Your task to perform on an android device: read, delete, or share a saved page in the chrome app Image 0: 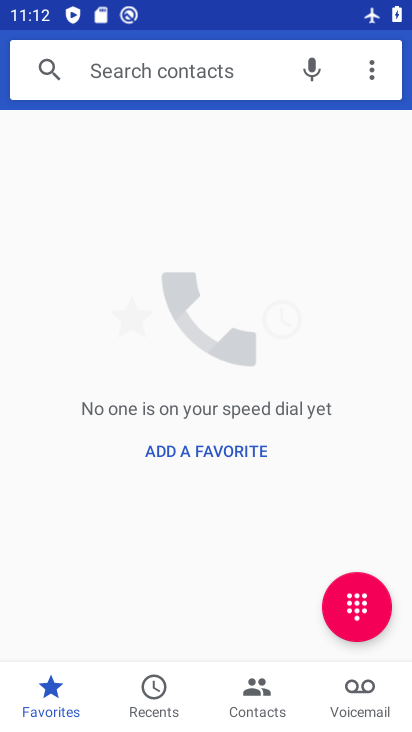
Step 0: press home button
Your task to perform on an android device: read, delete, or share a saved page in the chrome app Image 1: 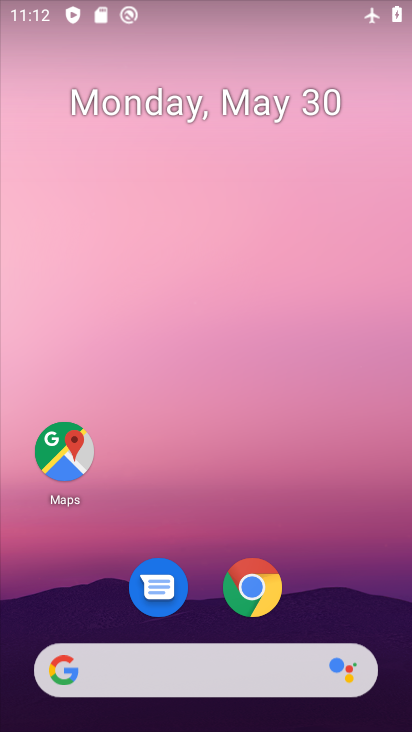
Step 1: click (253, 585)
Your task to perform on an android device: read, delete, or share a saved page in the chrome app Image 2: 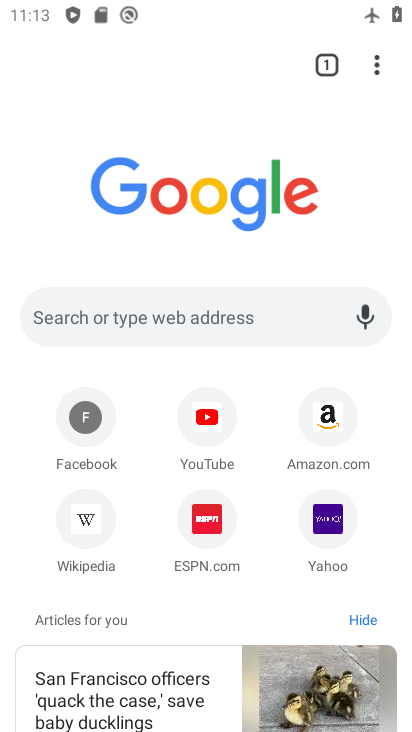
Step 2: click (385, 55)
Your task to perform on an android device: read, delete, or share a saved page in the chrome app Image 3: 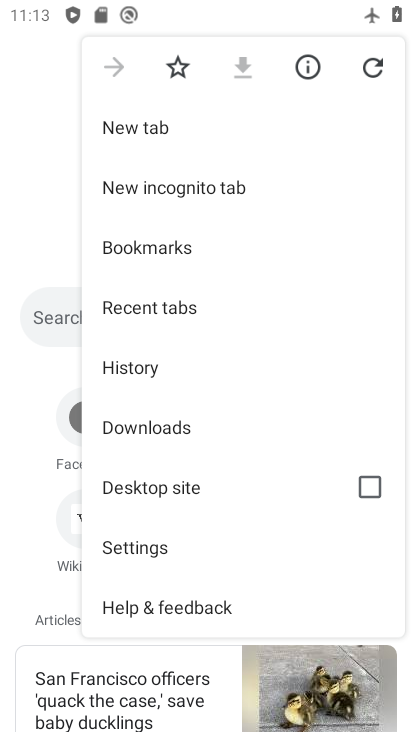
Step 3: click (167, 426)
Your task to perform on an android device: read, delete, or share a saved page in the chrome app Image 4: 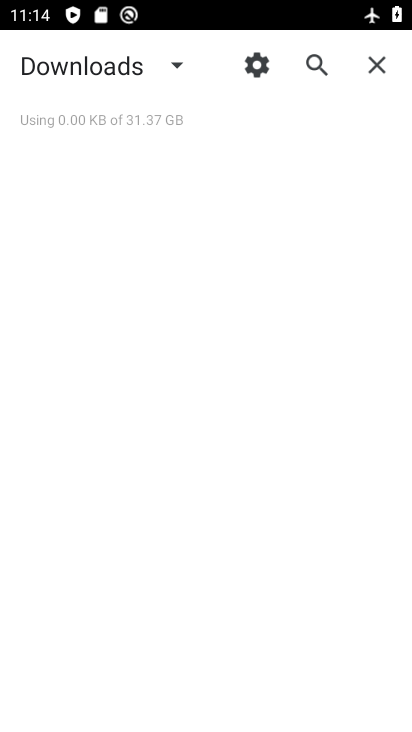
Step 4: task complete